Your task to perform on an android device: toggle notification dots Image 0: 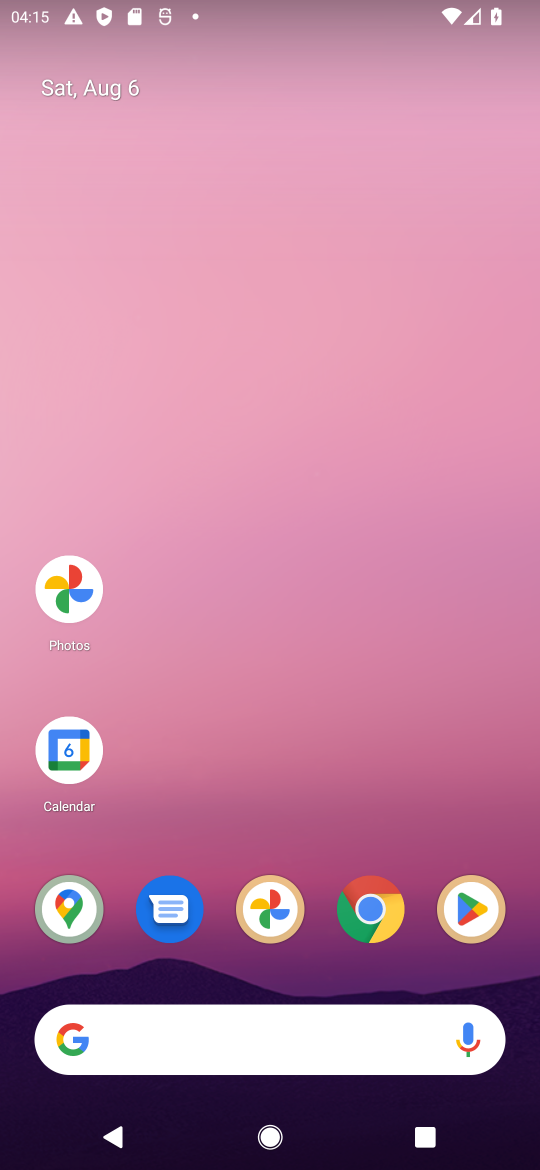
Step 0: drag from (365, 733) to (431, 65)
Your task to perform on an android device: toggle notification dots Image 1: 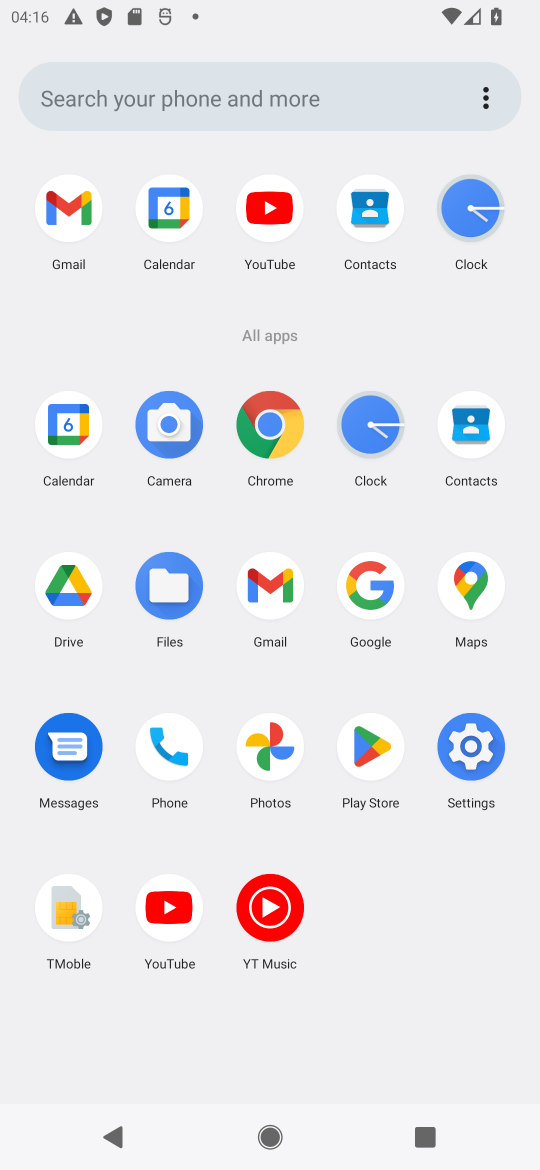
Step 1: click (478, 742)
Your task to perform on an android device: toggle notification dots Image 2: 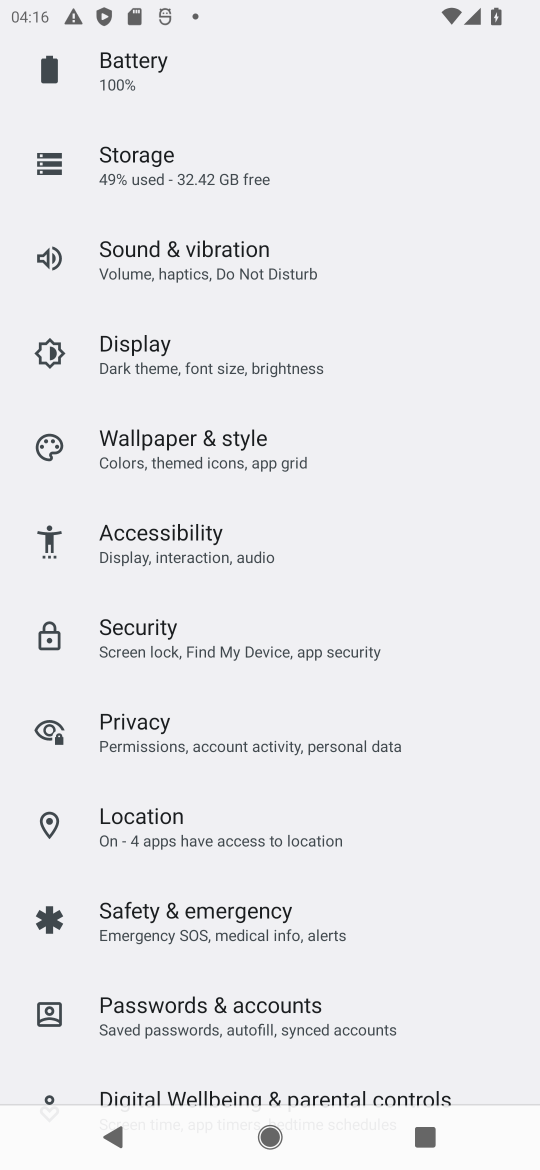
Step 2: drag from (350, 210) to (307, 1047)
Your task to perform on an android device: toggle notification dots Image 3: 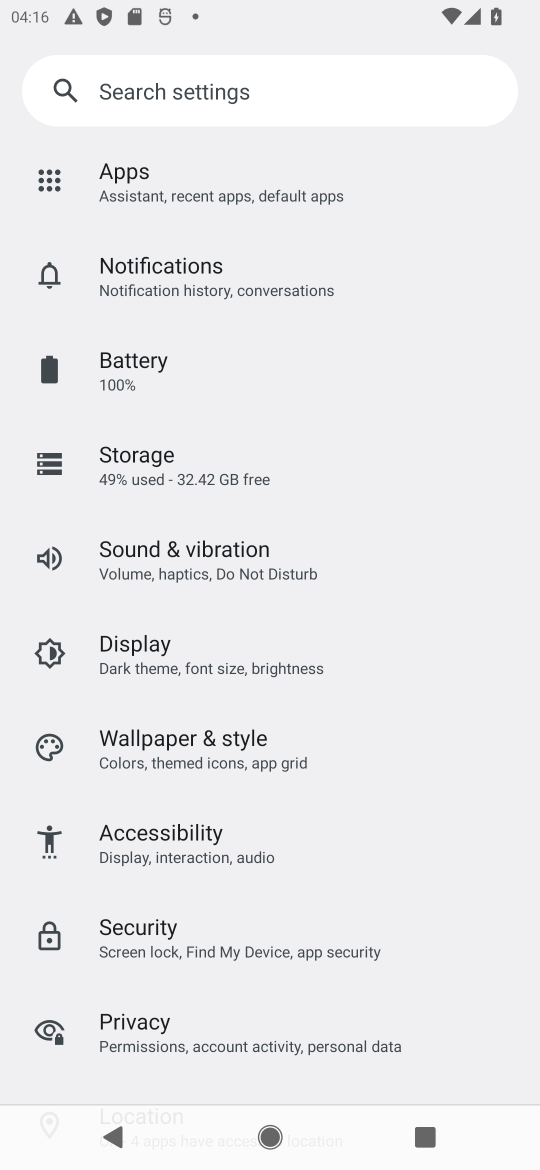
Step 3: click (185, 266)
Your task to perform on an android device: toggle notification dots Image 4: 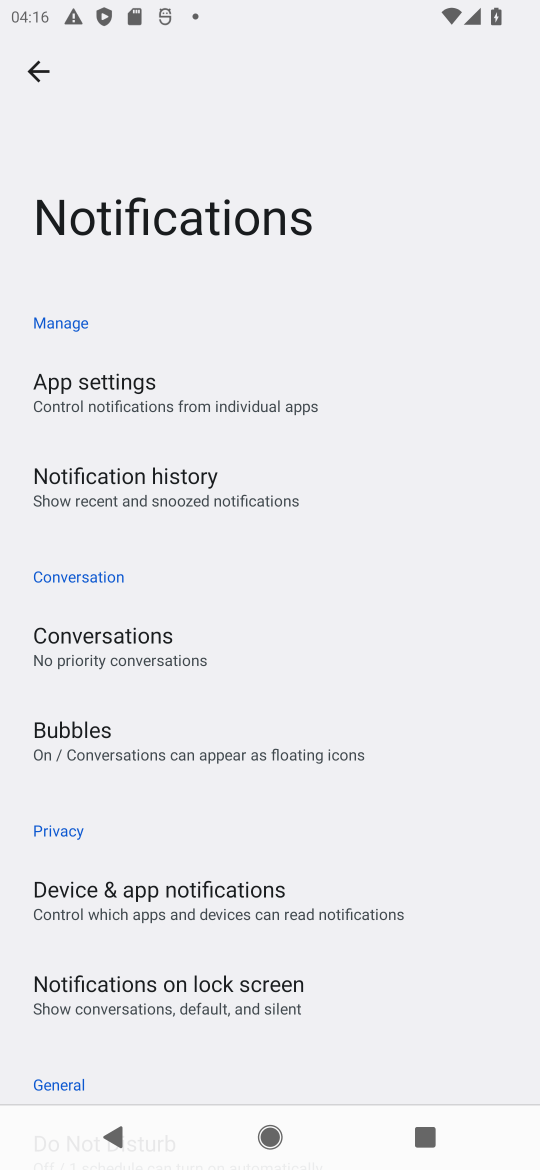
Step 4: drag from (367, 940) to (508, 323)
Your task to perform on an android device: toggle notification dots Image 5: 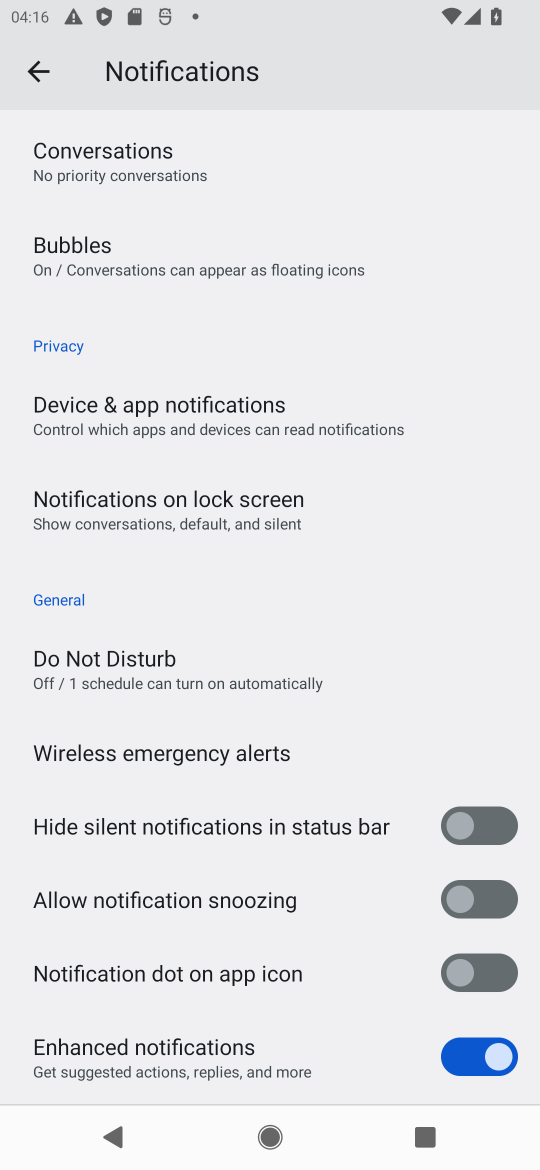
Step 5: drag from (376, 637) to (361, 251)
Your task to perform on an android device: toggle notification dots Image 6: 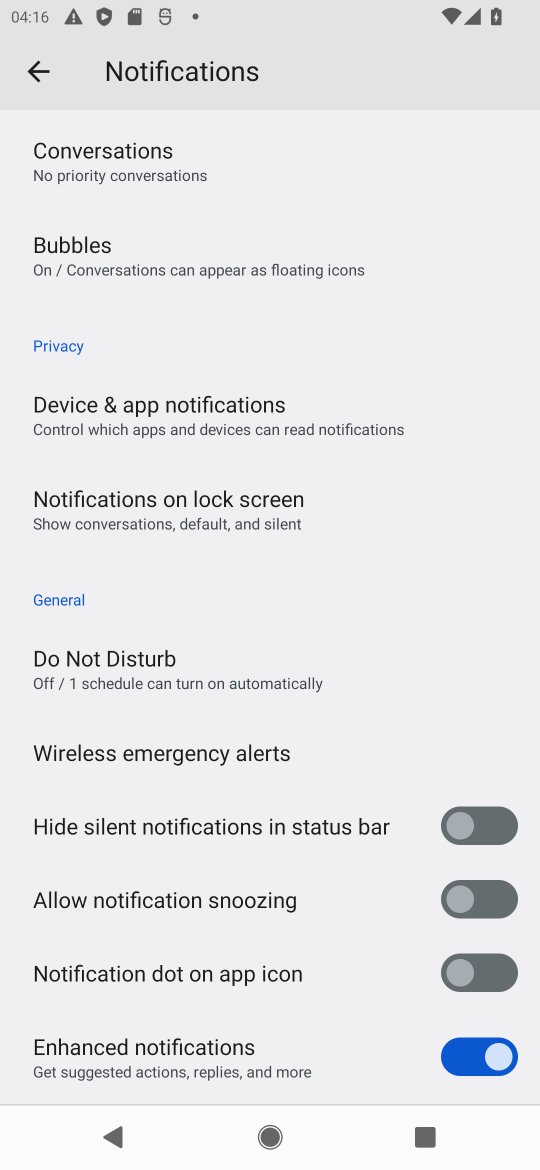
Step 6: click (439, 966)
Your task to perform on an android device: toggle notification dots Image 7: 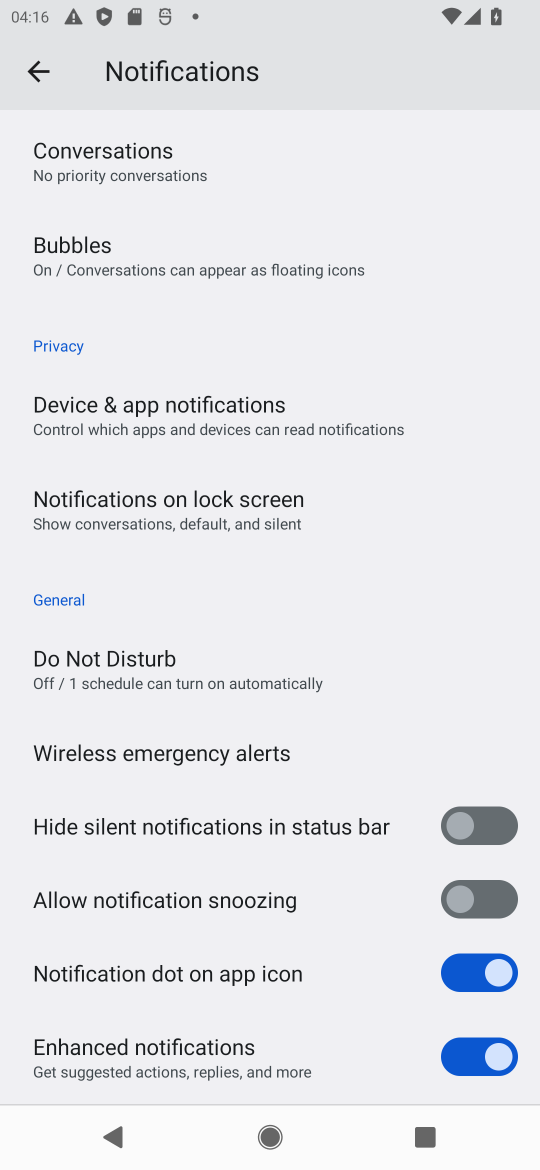
Step 7: task complete